Your task to perform on an android device: open device folders in google photos Image 0: 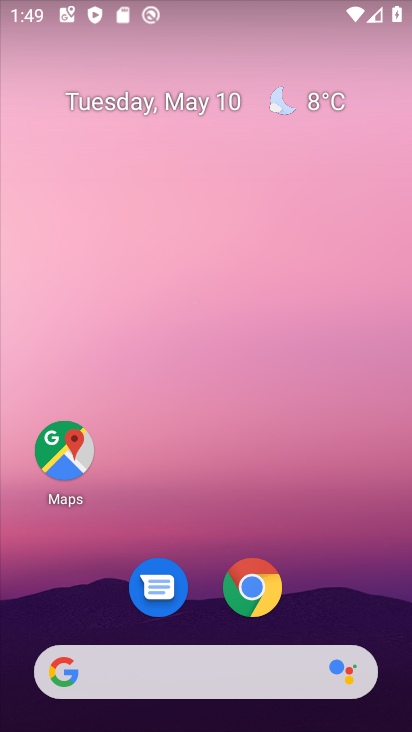
Step 0: drag from (328, 545) to (250, 1)
Your task to perform on an android device: open device folders in google photos Image 1: 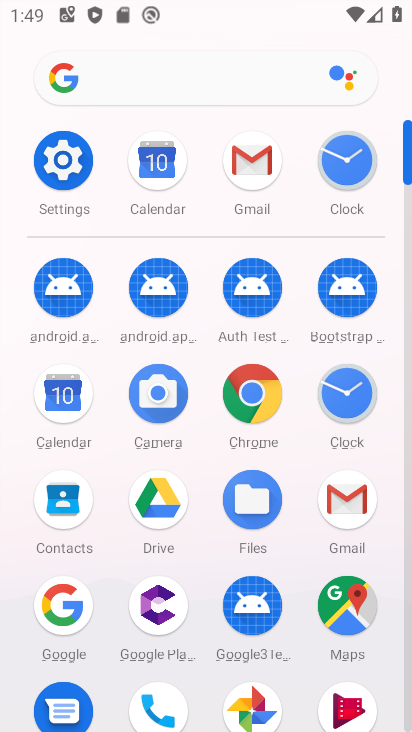
Step 1: click (244, 691)
Your task to perform on an android device: open device folders in google photos Image 2: 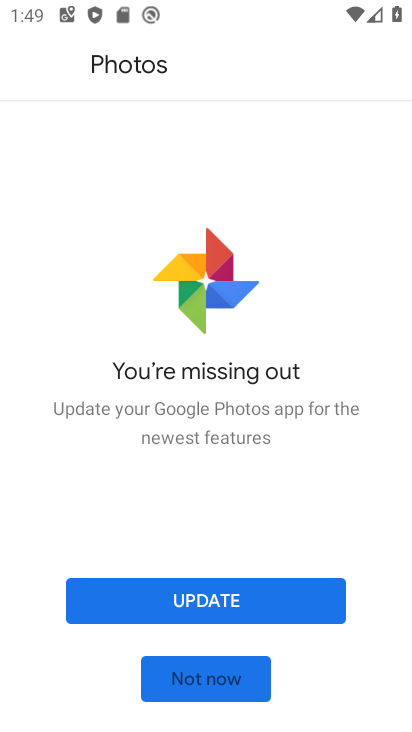
Step 2: click (231, 684)
Your task to perform on an android device: open device folders in google photos Image 3: 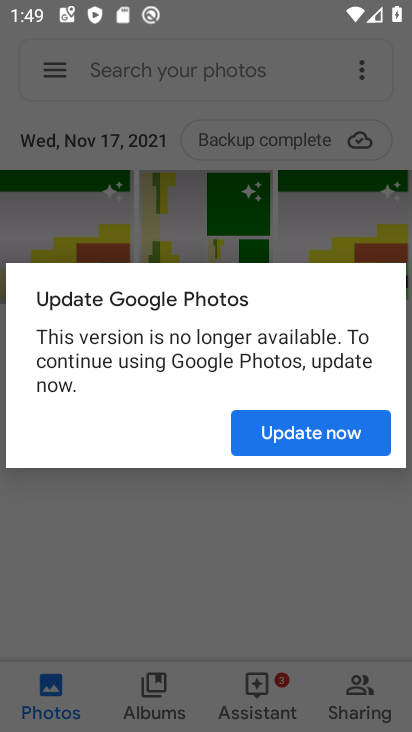
Step 3: click (340, 548)
Your task to perform on an android device: open device folders in google photos Image 4: 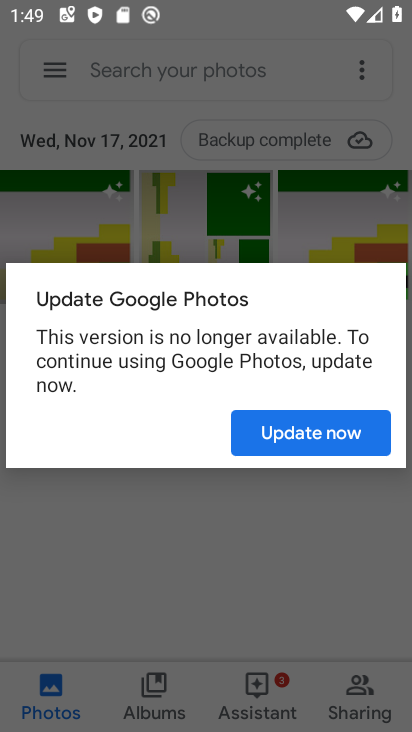
Step 4: click (325, 430)
Your task to perform on an android device: open device folders in google photos Image 5: 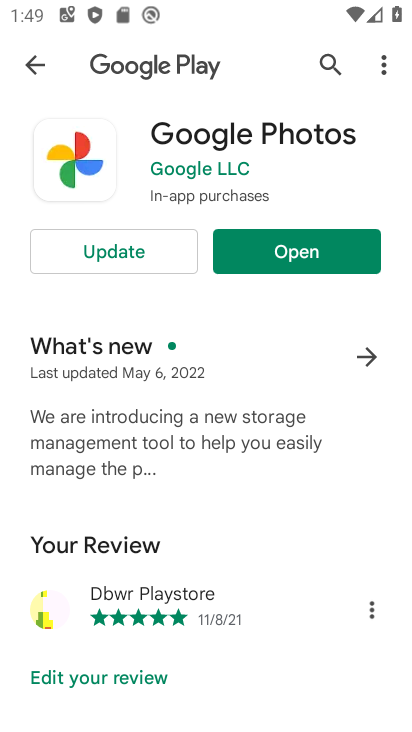
Step 5: click (308, 261)
Your task to perform on an android device: open device folders in google photos Image 6: 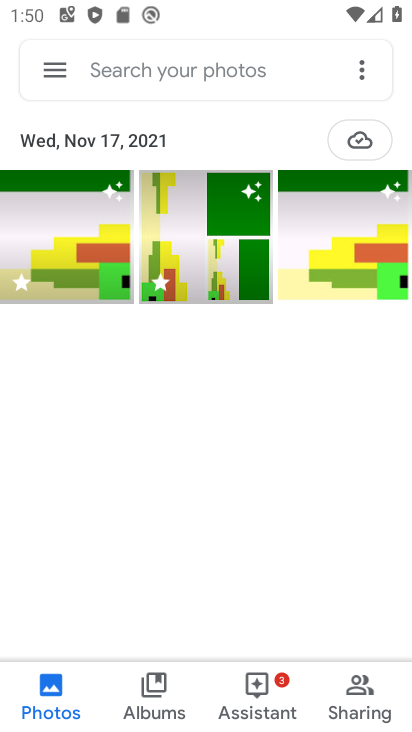
Step 6: click (33, 63)
Your task to perform on an android device: open device folders in google photos Image 7: 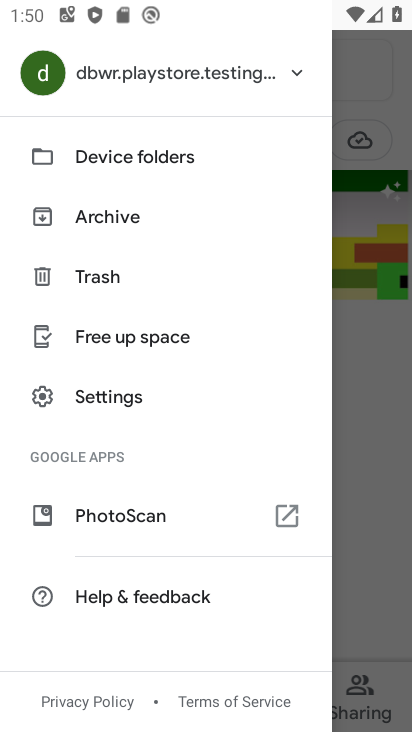
Step 7: click (156, 151)
Your task to perform on an android device: open device folders in google photos Image 8: 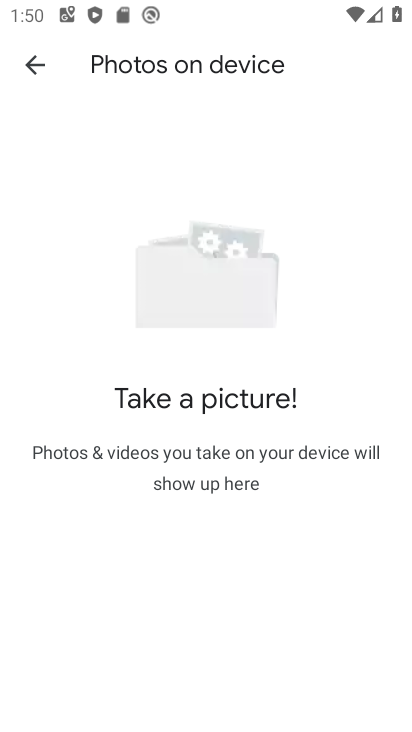
Step 8: task complete